Your task to perform on an android device: delete location history Image 0: 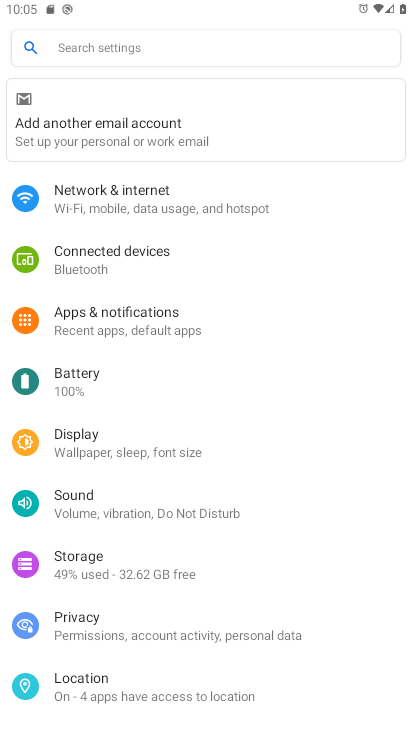
Step 0: press home button
Your task to perform on an android device: delete location history Image 1: 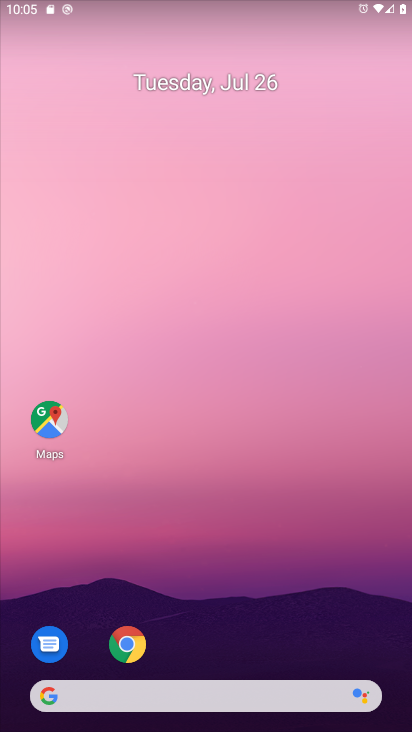
Step 1: drag from (203, 647) to (229, 27)
Your task to perform on an android device: delete location history Image 2: 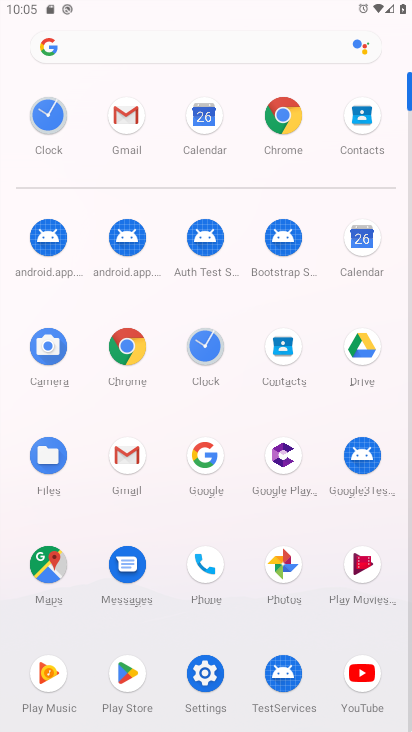
Step 2: click (51, 570)
Your task to perform on an android device: delete location history Image 3: 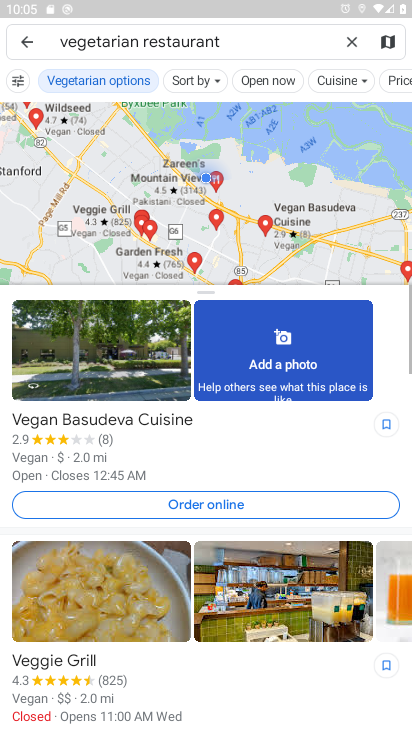
Step 3: click (22, 44)
Your task to perform on an android device: delete location history Image 4: 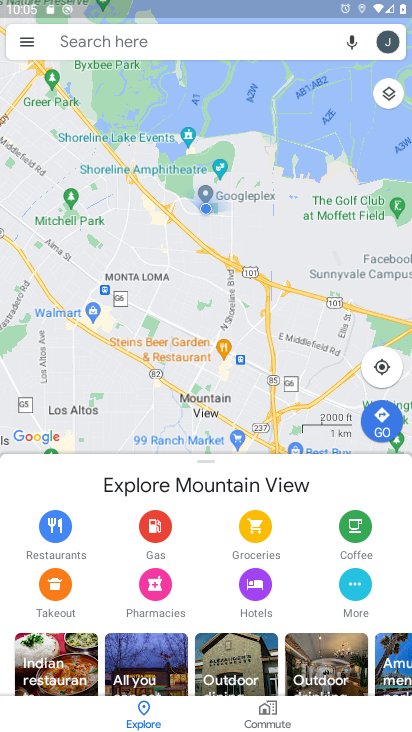
Step 4: click (20, 48)
Your task to perform on an android device: delete location history Image 5: 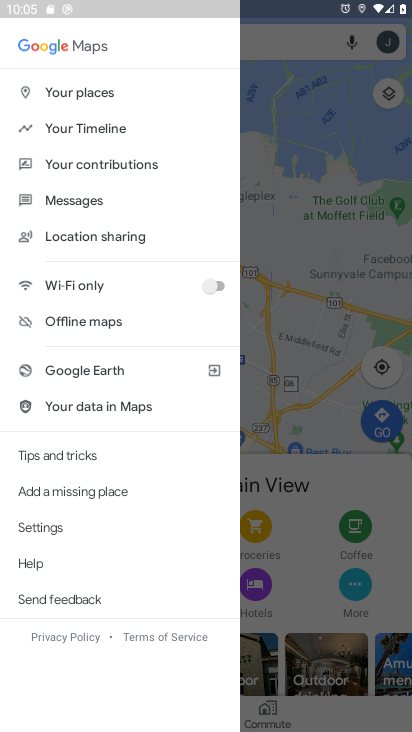
Step 5: click (92, 129)
Your task to perform on an android device: delete location history Image 6: 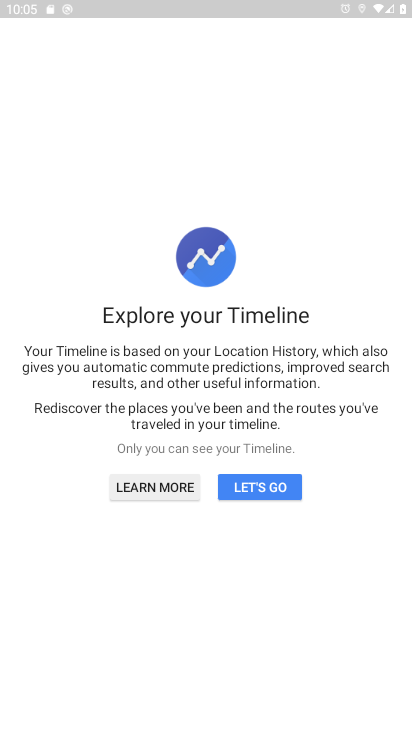
Step 6: click (281, 495)
Your task to perform on an android device: delete location history Image 7: 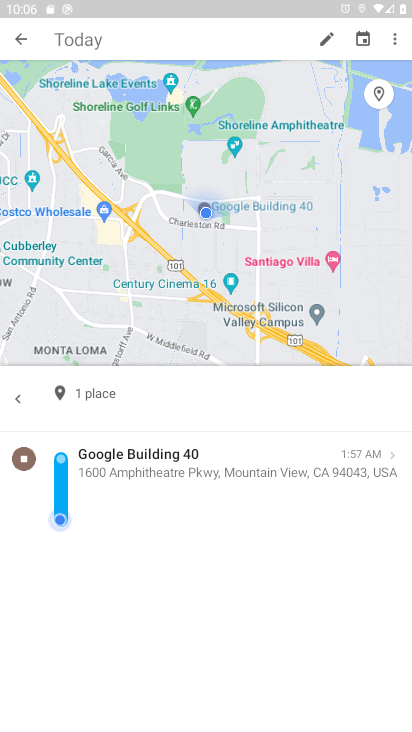
Step 7: click (394, 41)
Your task to perform on an android device: delete location history Image 8: 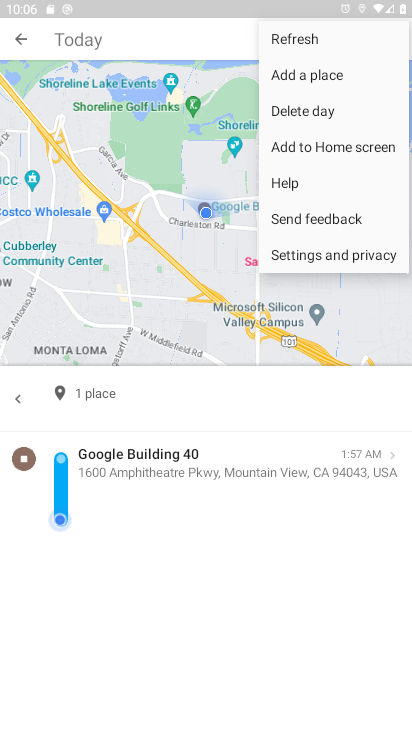
Step 8: click (308, 250)
Your task to perform on an android device: delete location history Image 9: 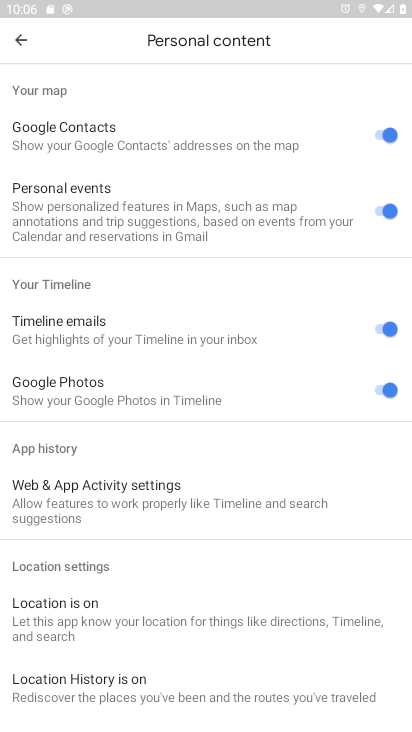
Step 9: drag from (133, 647) to (159, 395)
Your task to perform on an android device: delete location history Image 10: 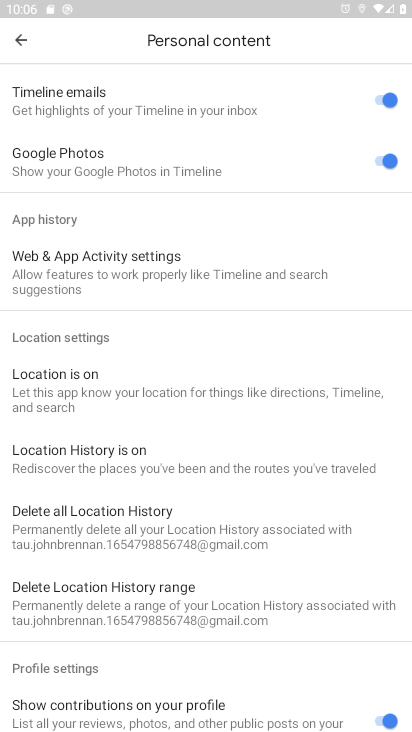
Step 10: click (112, 524)
Your task to perform on an android device: delete location history Image 11: 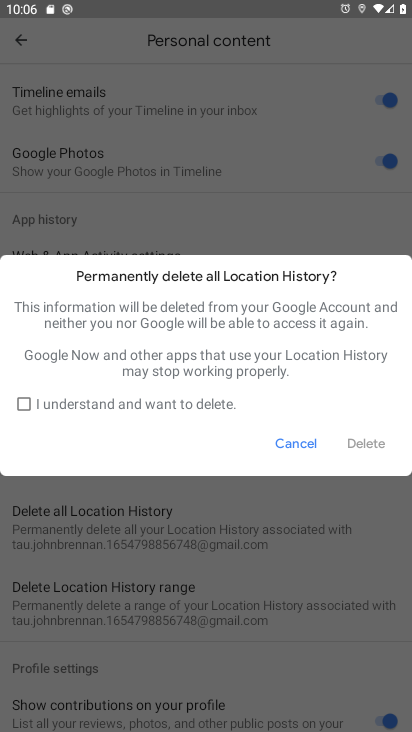
Step 11: click (83, 409)
Your task to perform on an android device: delete location history Image 12: 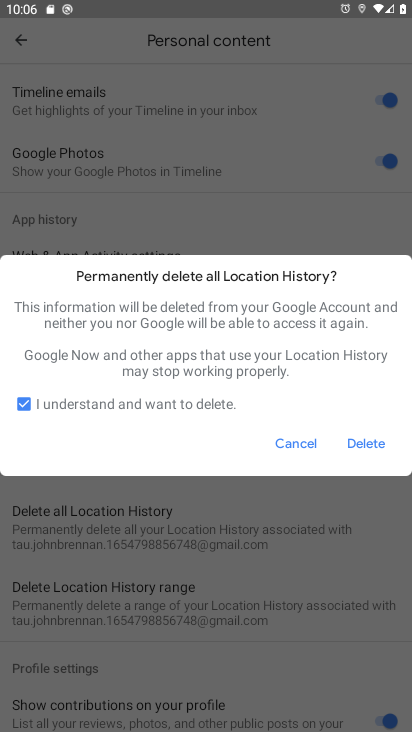
Step 12: click (380, 444)
Your task to perform on an android device: delete location history Image 13: 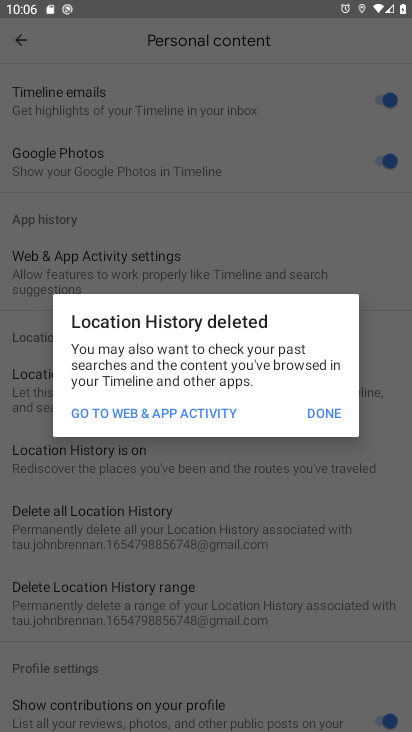
Step 13: click (344, 407)
Your task to perform on an android device: delete location history Image 14: 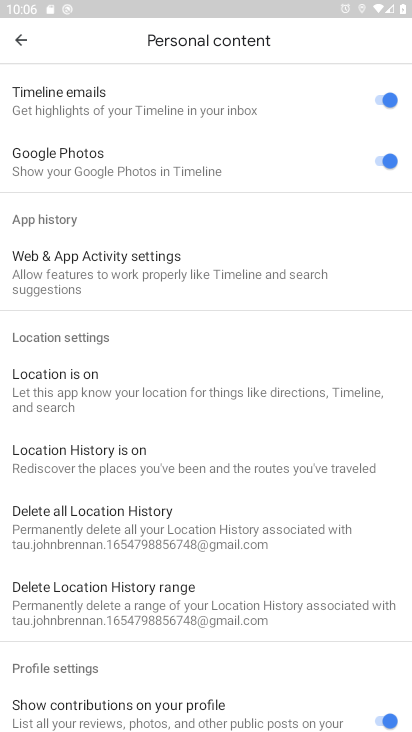
Step 14: task complete